Your task to perform on an android device: Open the web browser Image 0: 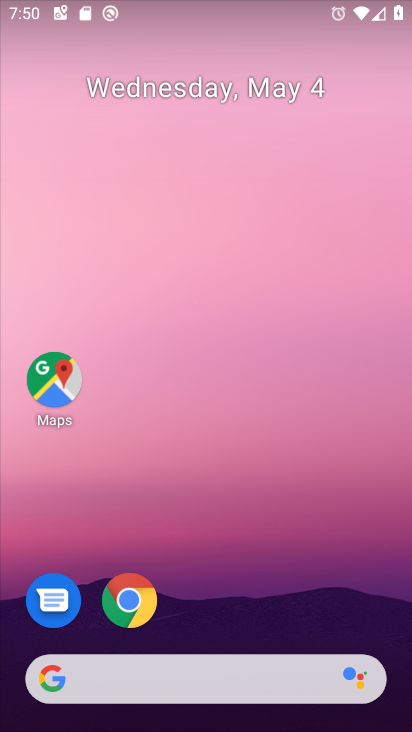
Step 0: drag from (179, 659) to (366, 20)
Your task to perform on an android device: Open the web browser Image 1: 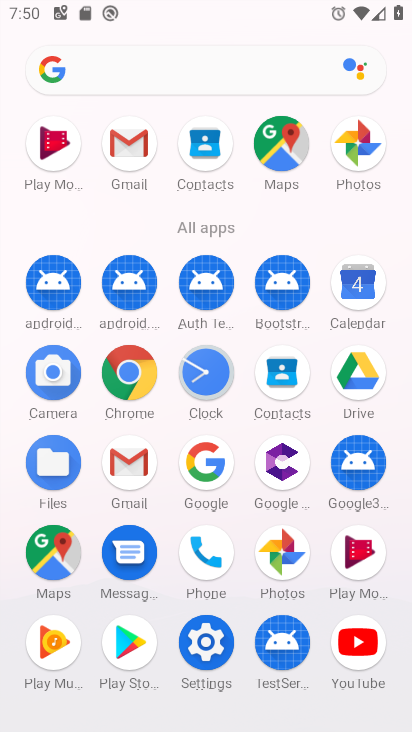
Step 1: click (205, 661)
Your task to perform on an android device: Open the web browser Image 2: 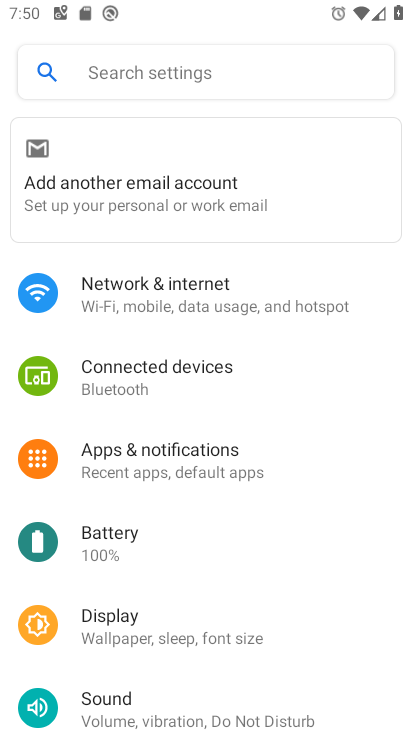
Step 2: press home button
Your task to perform on an android device: Open the web browser Image 3: 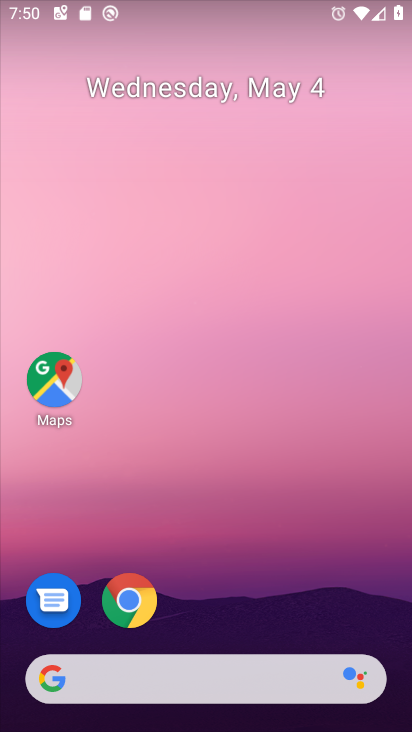
Step 3: click (134, 609)
Your task to perform on an android device: Open the web browser Image 4: 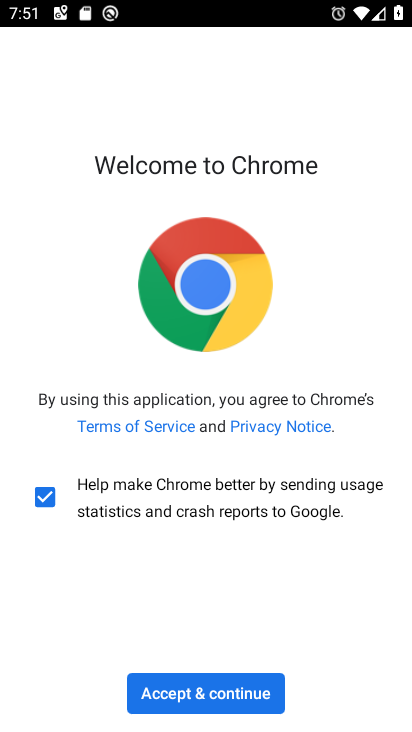
Step 4: click (189, 680)
Your task to perform on an android device: Open the web browser Image 5: 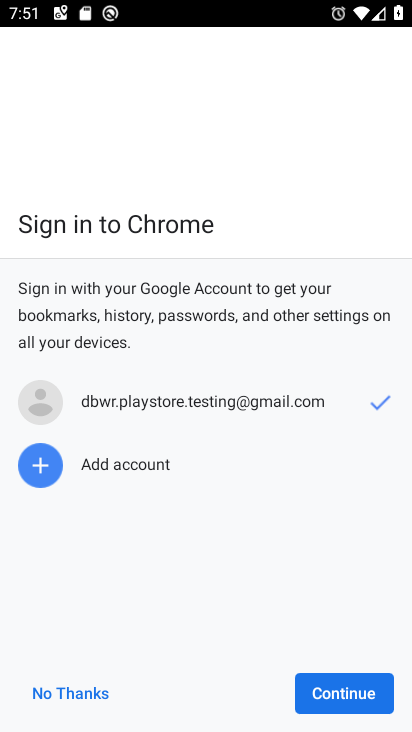
Step 5: click (325, 686)
Your task to perform on an android device: Open the web browser Image 6: 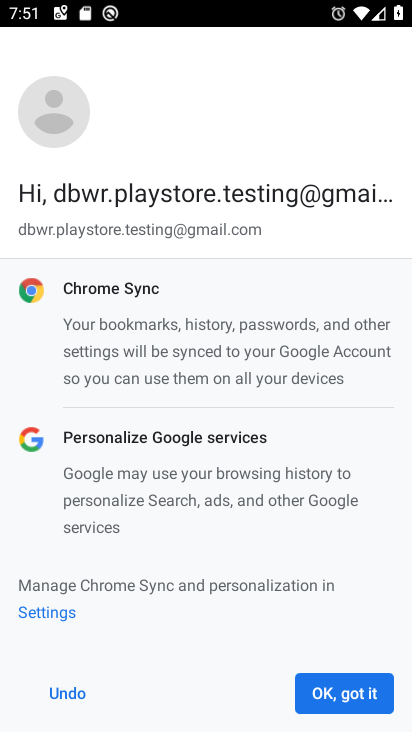
Step 6: click (325, 686)
Your task to perform on an android device: Open the web browser Image 7: 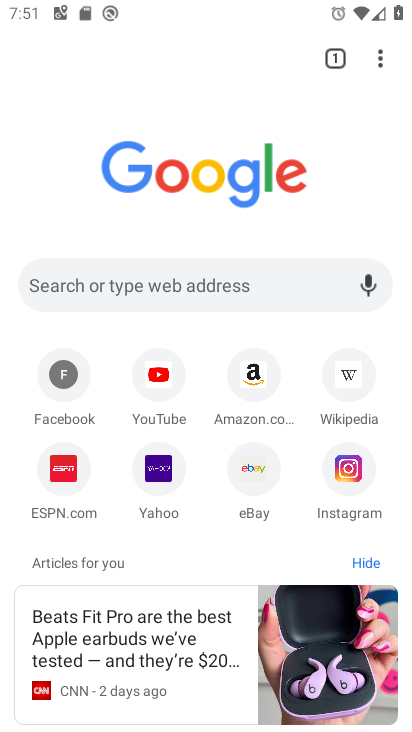
Step 7: task complete